Your task to perform on an android device: open wifi settings Image 0: 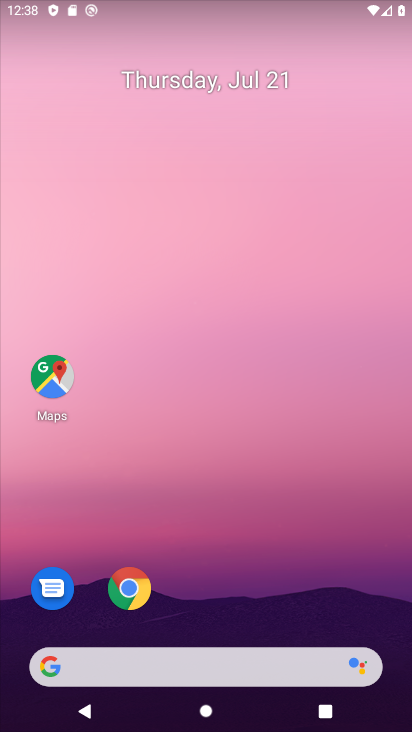
Step 0: drag from (214, 580) to (186, 106)
Your task to perform on an android device: open wifi settings Image 1: 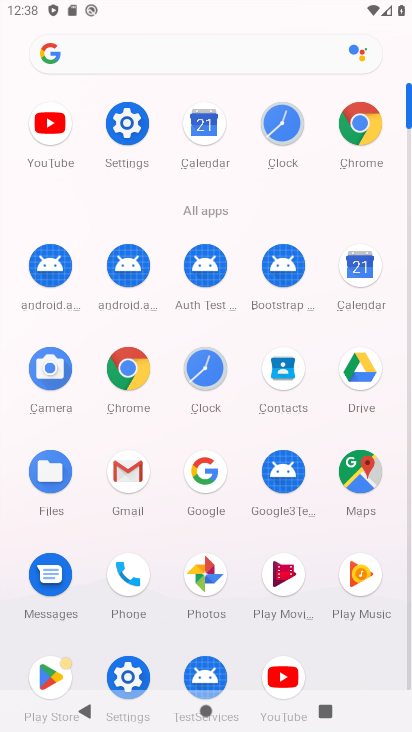
Step 1: click (136, 137)
Your task to perform on an android device: open wifi settings Image 2: 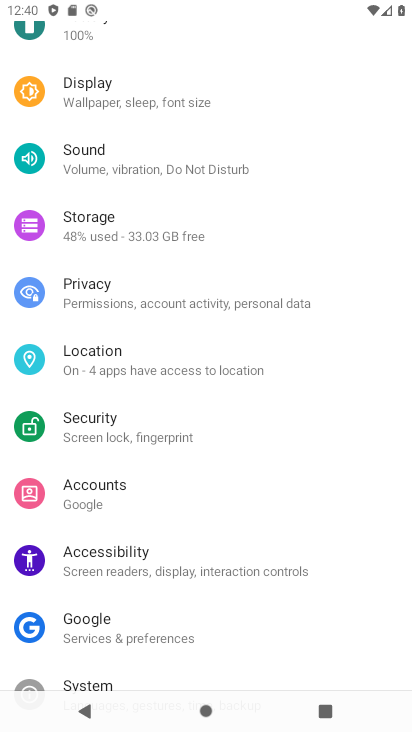
Step 2: task complete